Your task to perform on an android device: Turn off the flashlight Image 0: 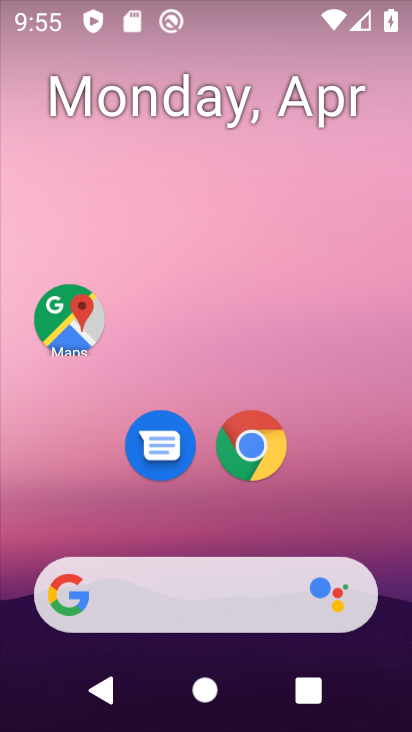
Step 0: drag from (232, 601) to (197, 90)
Your task to perform on an android device: Turn off the flashlight Image 1: 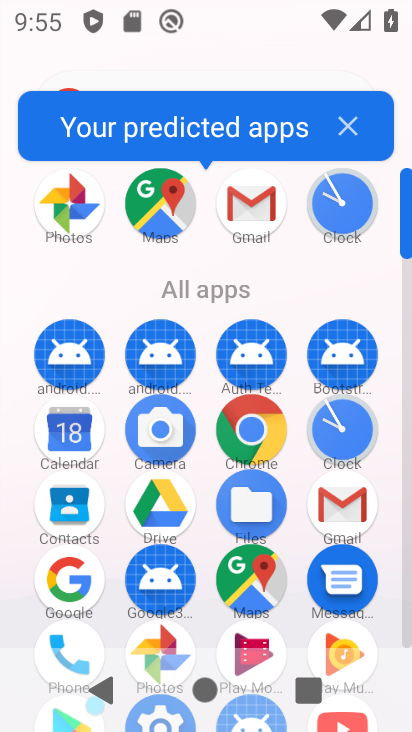
Step 1: drag from (294, 597) to (282, 219)
Your task to perform on an android device: Turn off the flashlight Image 2: 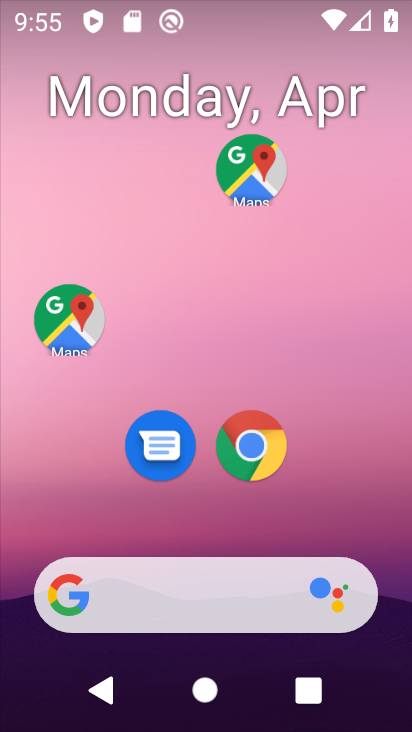
Step 2: drag from (354, 438) to (328, 35)
Your task to perform on an android device: Turn off the flashlight Image 3: 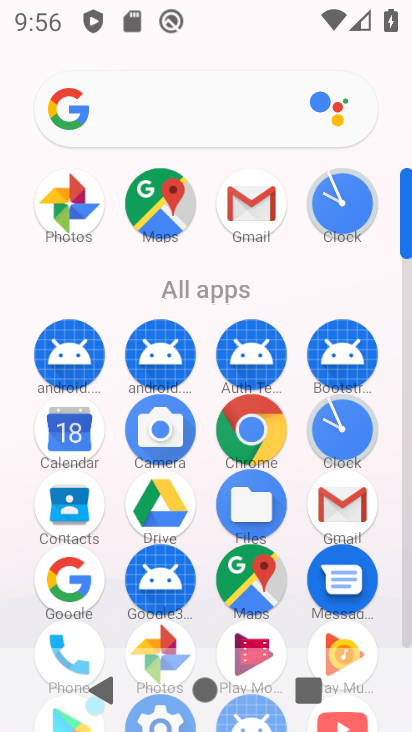
Step 3: drag from (214, 617) to (171, 292)
Your task to perform on an android device: Turn off the flashlight Image 4: 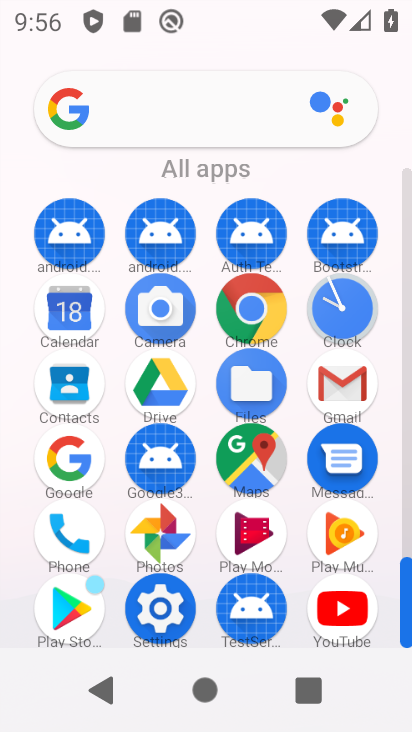
Step 4: click (142, 590)
Your task to perform on an android device: Turn off the flashlight Image 5: 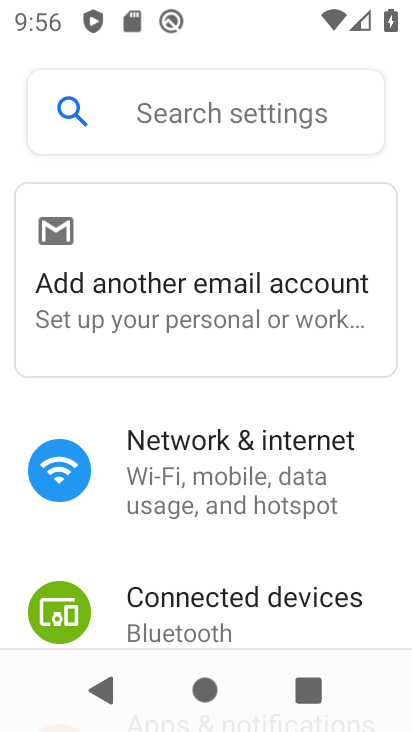
Step 5: drag from (334, 495) to (355, 145)
Your task to perform on an android device: Turn off the flashlight Image 6: 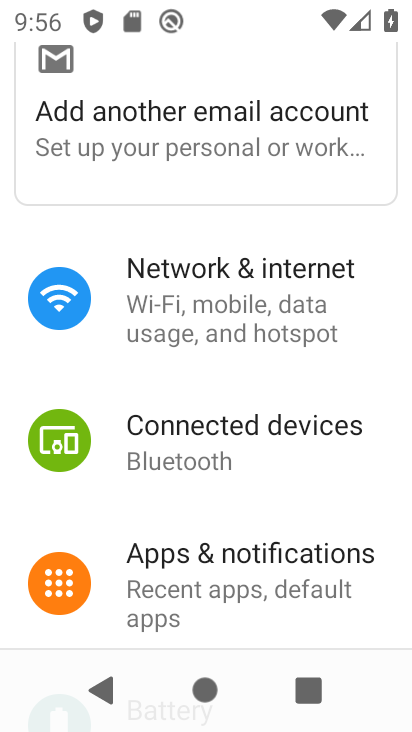
Step 6: drag from (275, 489) to (271, 94)
Your task to perform on an android device: Turn off the flashlight Image 7: 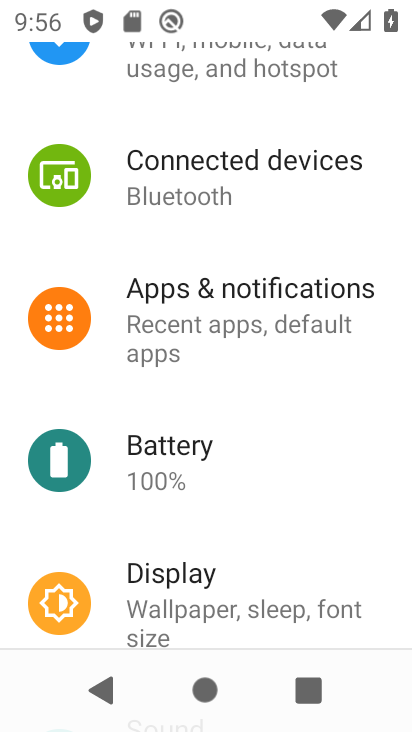
Step 7: drag from (386, 521) to (361, 136)
Your task to perform on an android device: Turn off the flashlight Image 8: 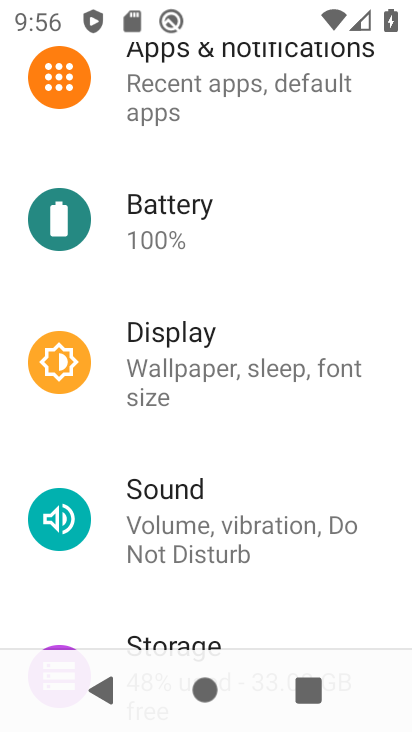
Step 8: drag from (321, 425) to (326, 45)
Your task to perform on an android device: Turn off the flashlight Image 9: 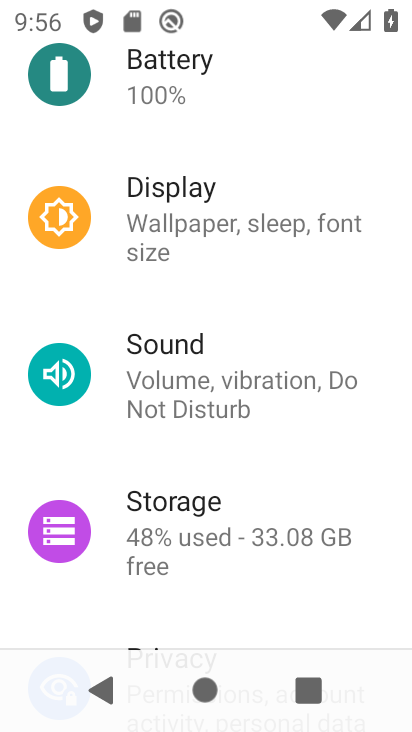
Step 9: drag from (328, 430) to (324, 79)
Your task to perform on an android device: Turn off the flashlight Image 10: 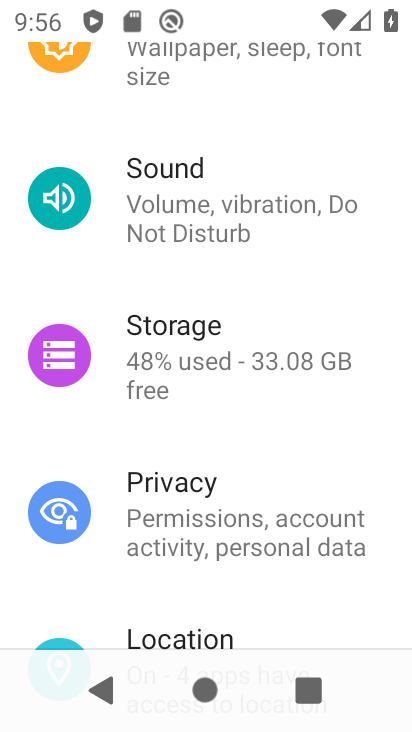
Step 10: drag from (297, 432) to (326, 71)
Your task to perform on an android device: Turn off the flashlight Image 11: 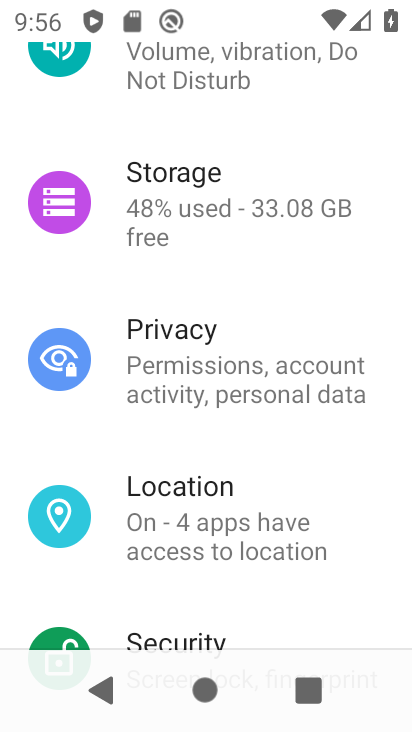
Step 11: drag from (255, 416) to (275, 98)
Your task to perform on an android device: Turn off the flashlight Image 12: 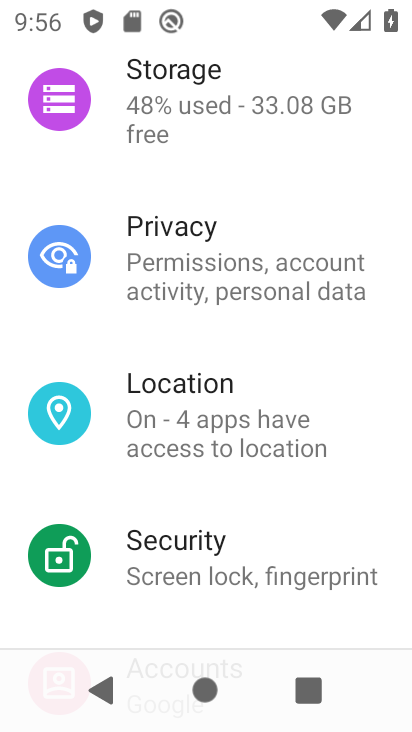
Step 12: drag from (185, 428) to (210, 188)
Your task to perform on an android device: Turn off the flashlight Image 13: 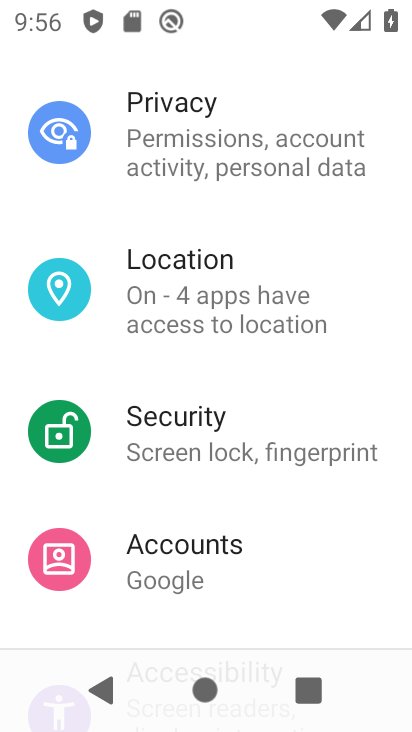
Step 13: drag from (214, 387) to (257, 131)
Your task to perform on an android device: Turn off the flashlight Image 14: 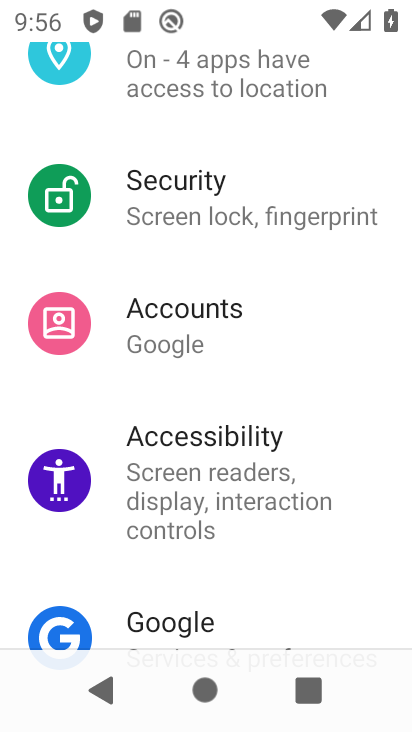
Step 14: drag from (193, 589) to (193, 319)
Your task to perform on an android device: Turn off the flashlight Image 15: 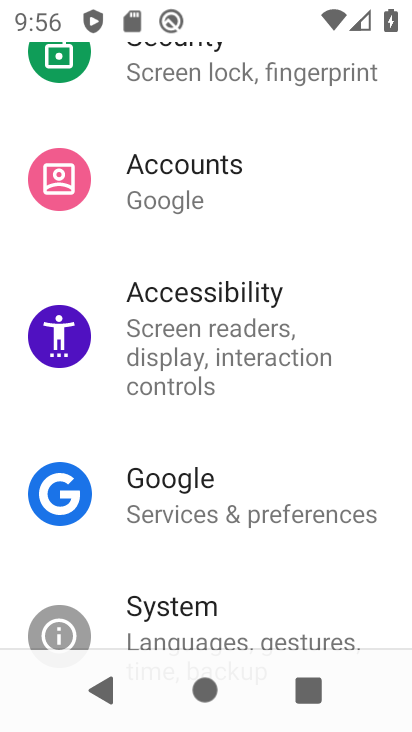
Step 15: click (214, 610)
Your task to perform on an android device: Turn off the flashlight Image 16: 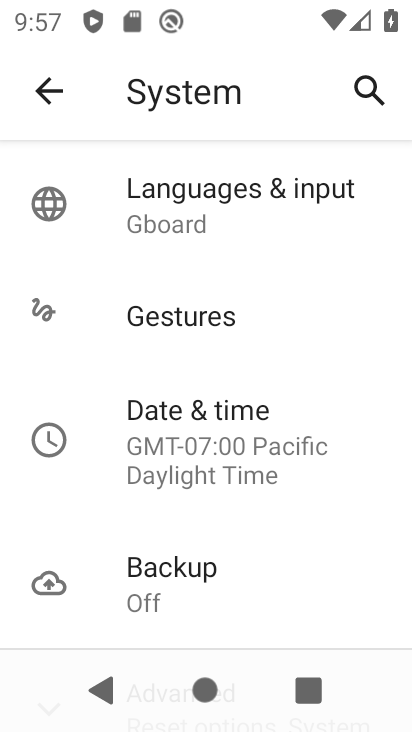
Step 16: click (201, 317)
Your task to perform on an android device: Turn off the flashlight Image 17: 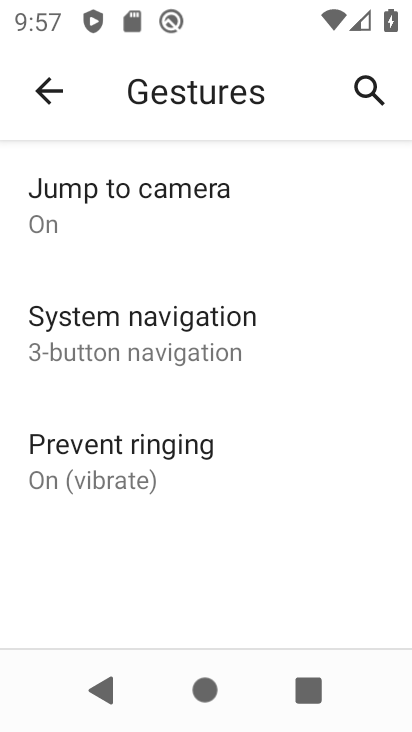
Step 17: task complete